Your task to perform on an android device: empty trash in the gmail app Image 0: 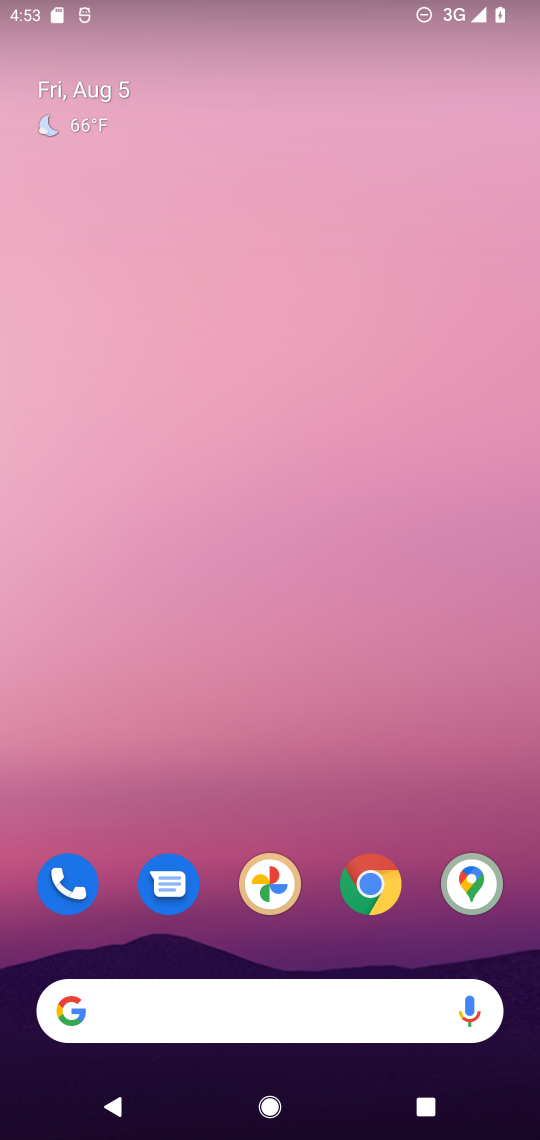
Step 0: drag from (457, 934) to (234, 18)
Your task to perform on an android device: empty trash in the gmail app Image 1: 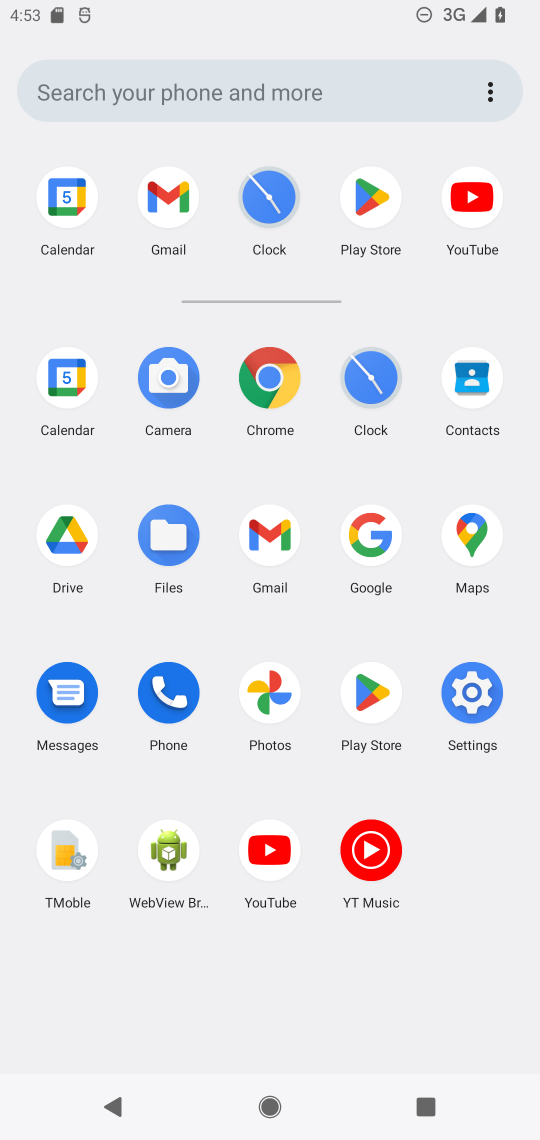
Step 1: click (263, 538)
Your task to perform on an android device: empty trash in the gmail app Image 2: 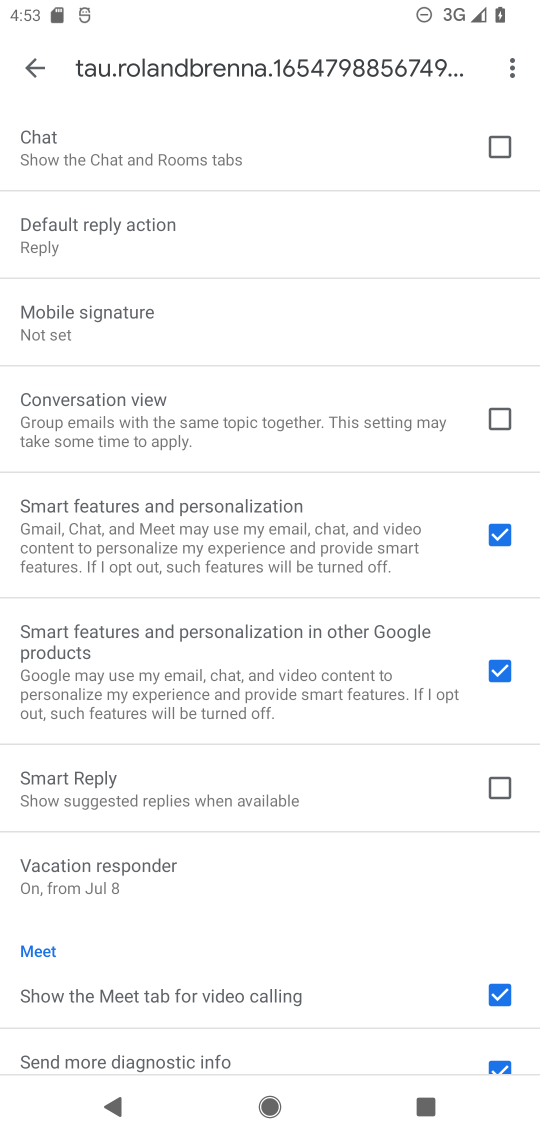
Step 2: press home button
Your task to perform on an android device: empty trash in the gmail app Image 3: 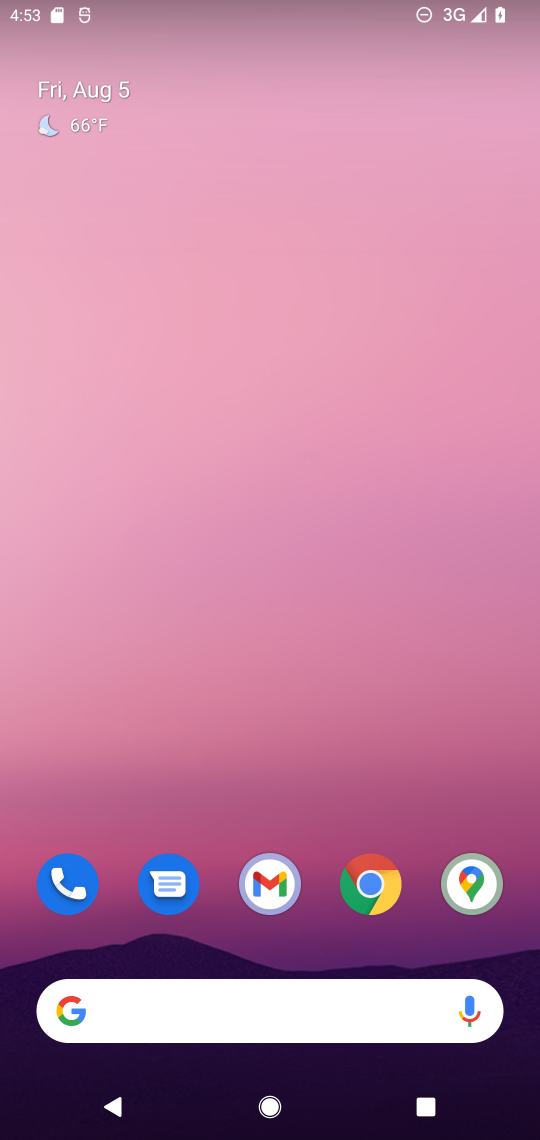
Step 3: drag from (505, 796) to (158, 46)
Your task to perform on an android device: empty trash in the gmail app Image 4: 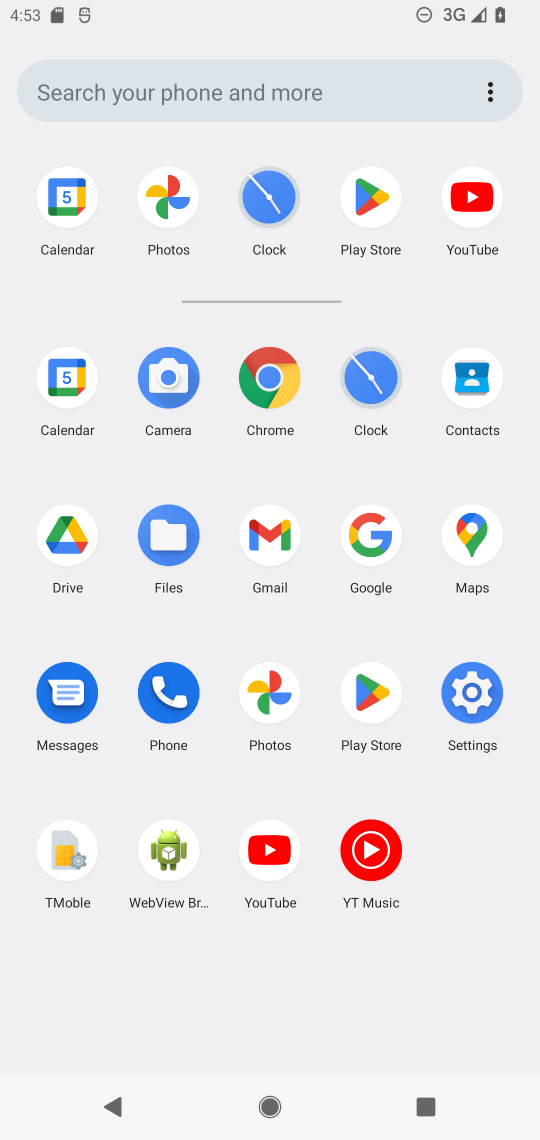
Step 4: click (268, 553)
Your task to perform on an android device: empty trash in the gmail app Image 5: 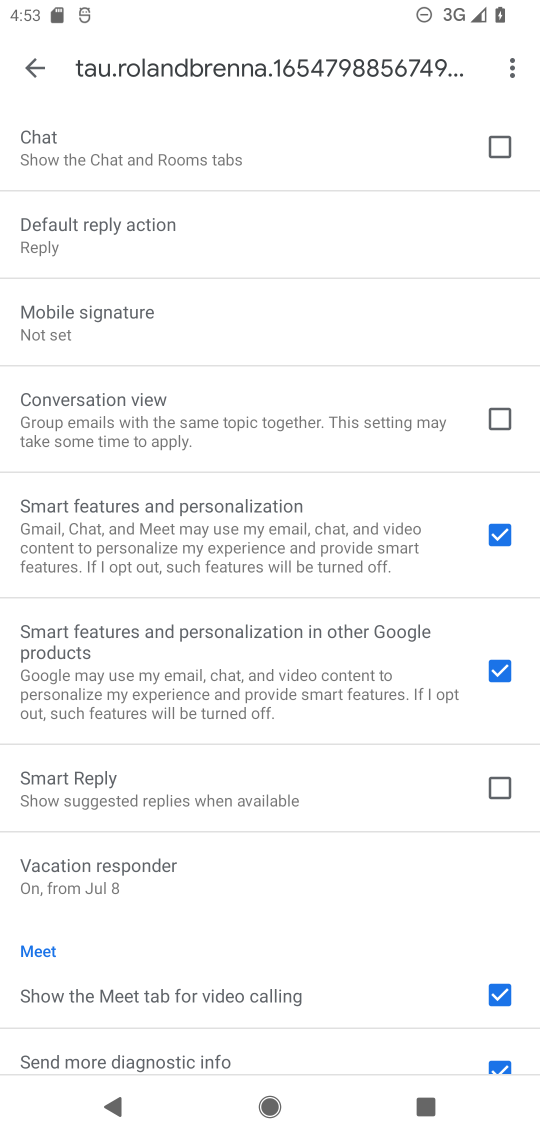
Step 5: press back button
Your task to perform on an android device: empty trash in the gmail app Image 6: 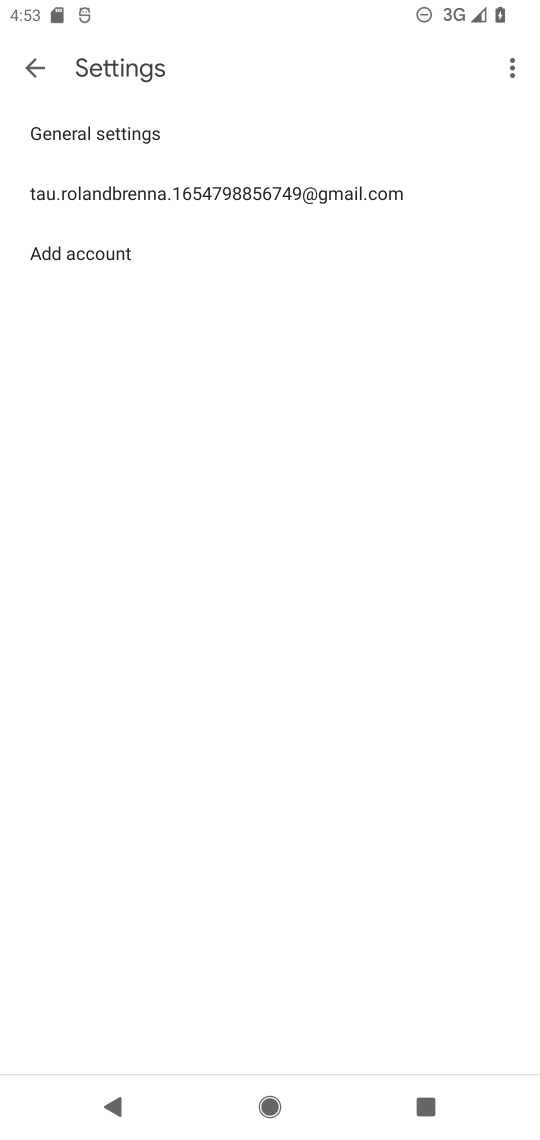
Step 6: press back button
Your task to perform on an android device: empty trash in the gmail app Image 7: 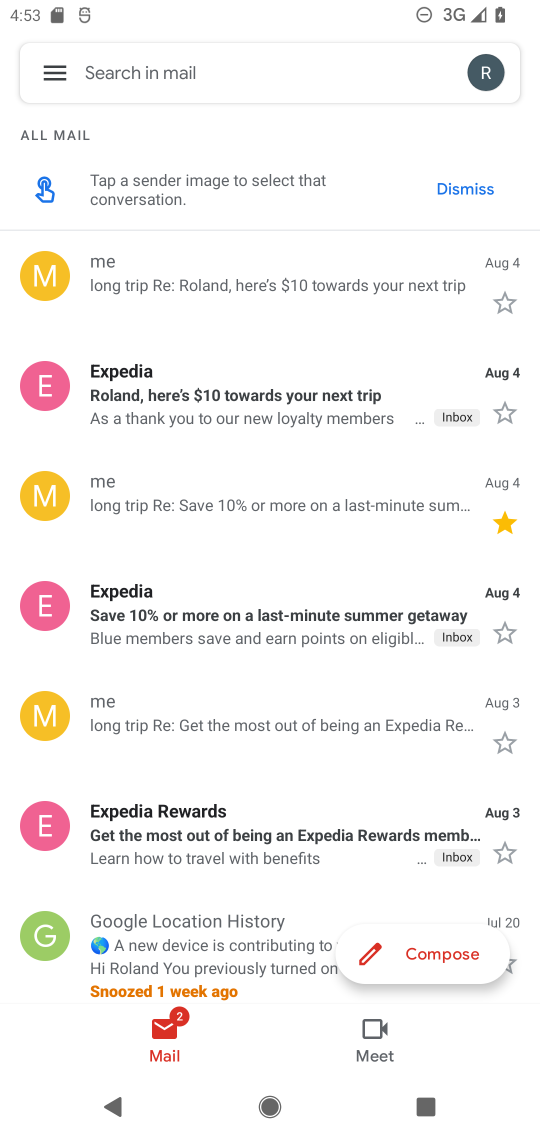
Step 7: click (47, 76)
Your task to perform on an android device: empty trash in the gmail app Image 8: 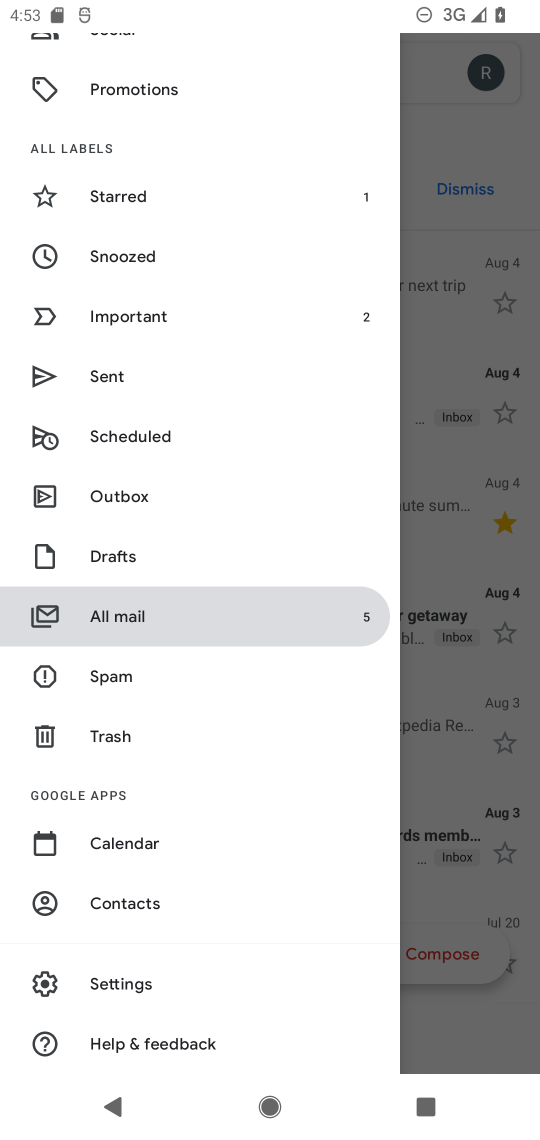
Step 8: click (94, 730)
Your task to perform on an android device: empty trash in the gmail app Image 9: 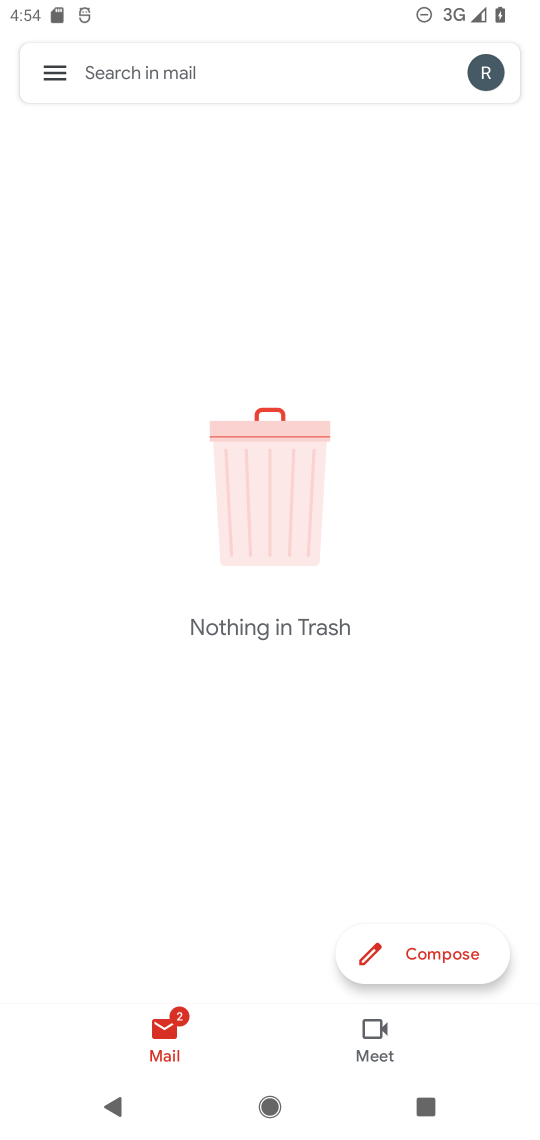
Step 9: task complete